Your task to perform on an android device: turn notification dots off Image 0: 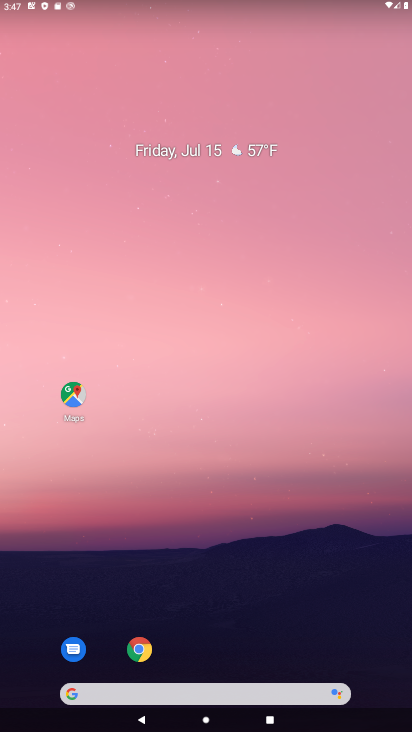
Step 0: drag from (223, 658) to (209, 99)
Your task to perform on an android device: turn notification dots off Image 1: 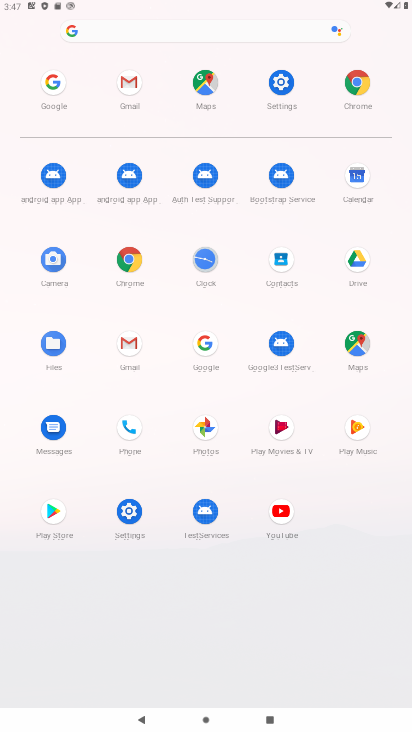
Step 1: click (280, 87)
Your task to perform on an android device: turn notification dots off Image 2: 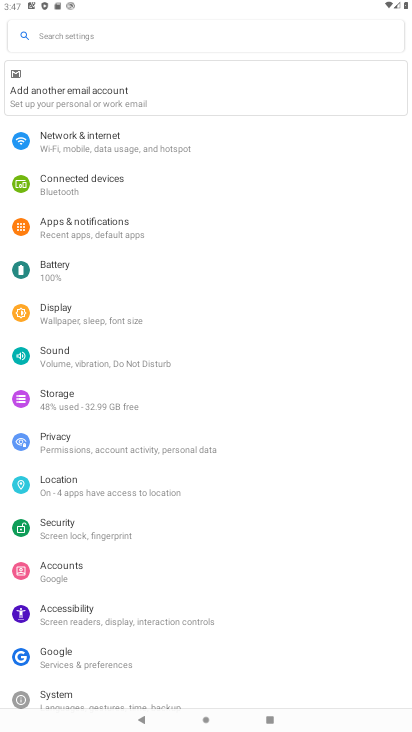
Step 2: click (93, 227)
Your task to perform on an android device: turn notification dots off Image 3: 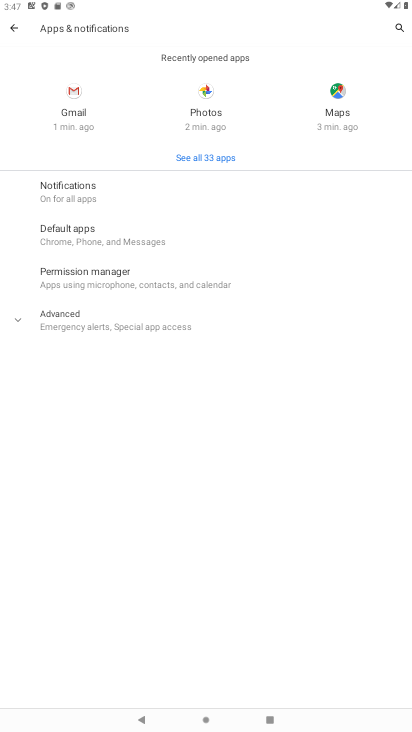
Step 3: click (67, 190)
Your task to perform on an android device: turn notification dots off Image 4: 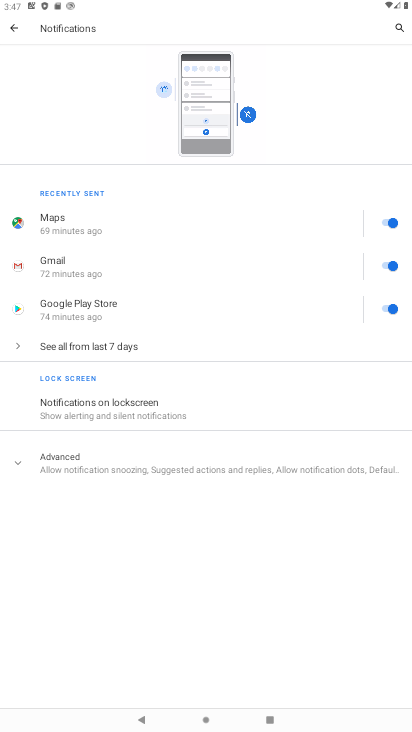
Step 4: click (120, 469)
Your task to perform on an android device: turn notification dots off Image 5: 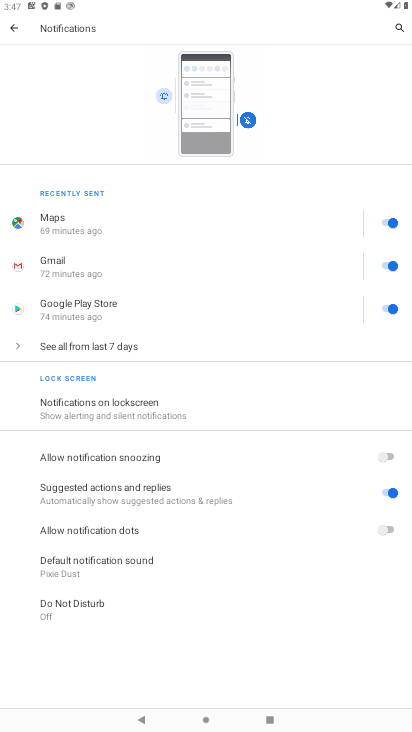
Step 5: task complete